Your task to perform on an android device: Is it going to rain today? Image 0: 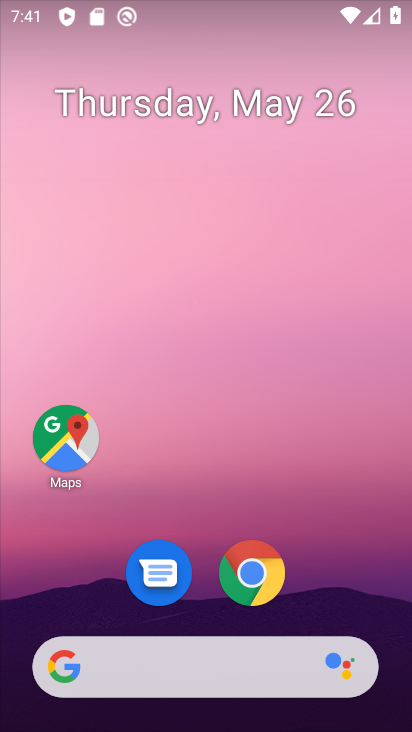
Step 0: click (265, 575)
Your task to perform on an android device: Is it going to rain today? Image 1: 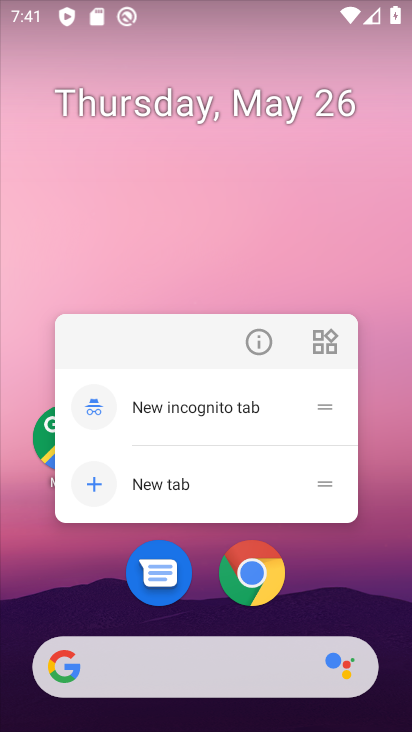
Step 1: click (260, 576)
Your task to perform on an android device: Is it going to rain today? Image 2: 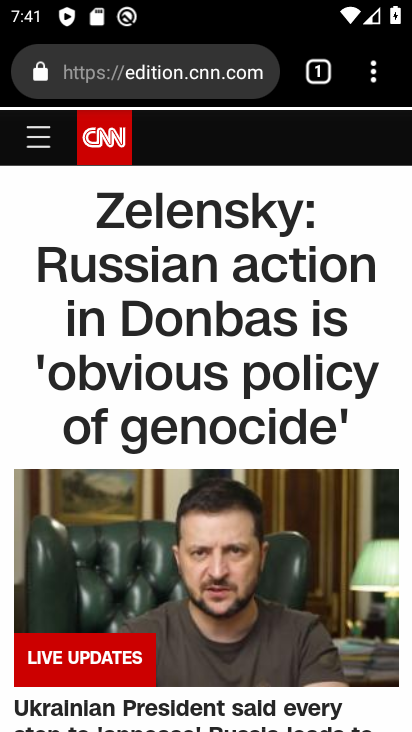
Step 2: click (198, 76)
Your task to perform on an android device: Is it going to rain today? Image 3: 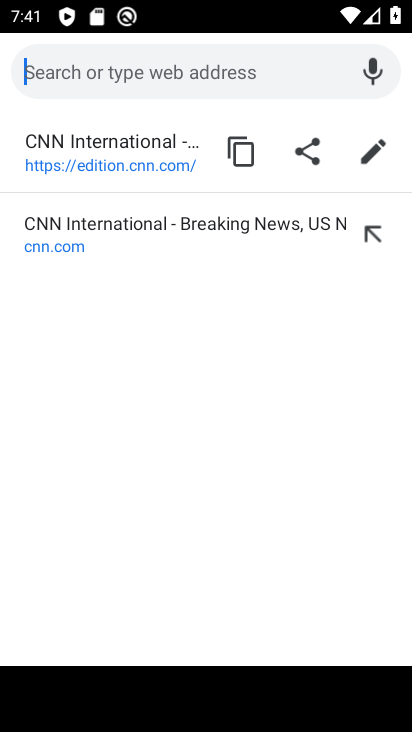
Step 3: type "weather"
Your task to perform on an android device: Is it going to rain today? Image 4: 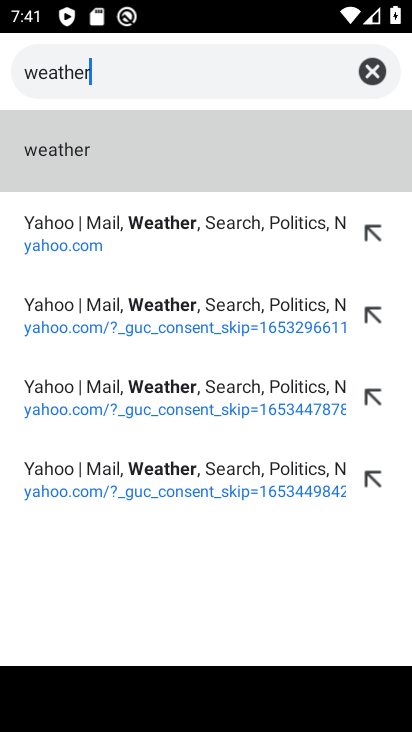
Step 4: click (65, 136)
Your task to perform on an android device: Is it going to rain today? Image 5: 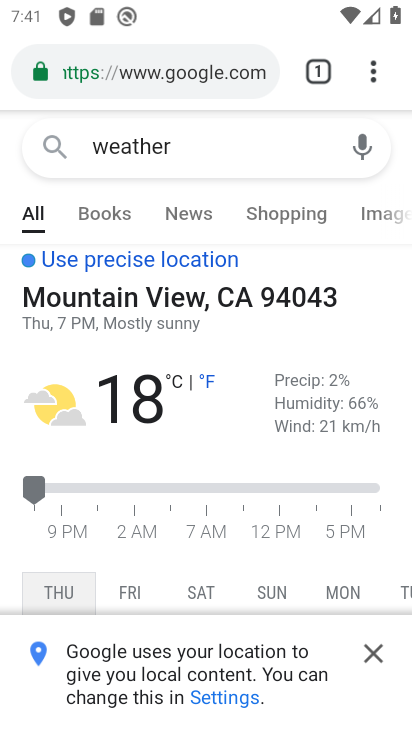
Step 5: task complete